Your task to perform on an android device: see tabs open on other devices in the chrome app Image 0: 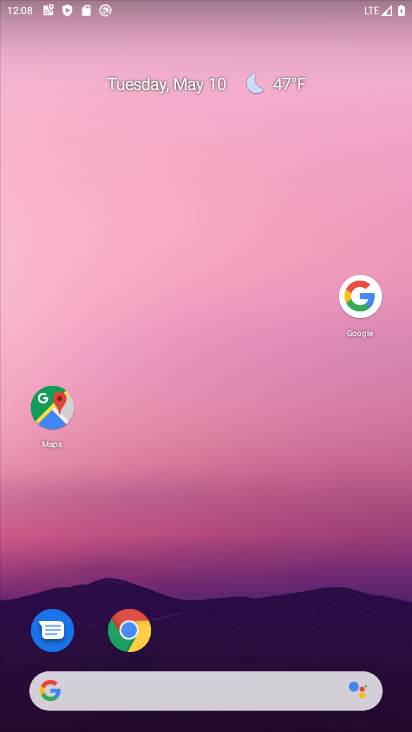
Step 0: press home button
Your task to perform on an android device: see tabs open on other devices in the chrome app Image 1: 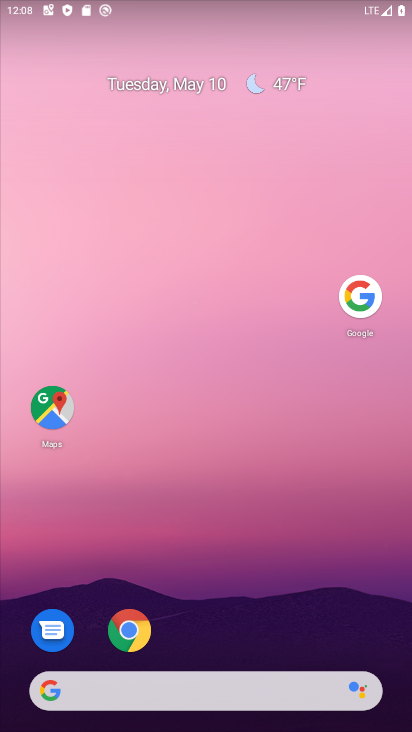
Step 1: drag from (160, 693) to (312, 183)
Your task to perform on an android device: see tabs open on other devices in the chrome app Image 2: 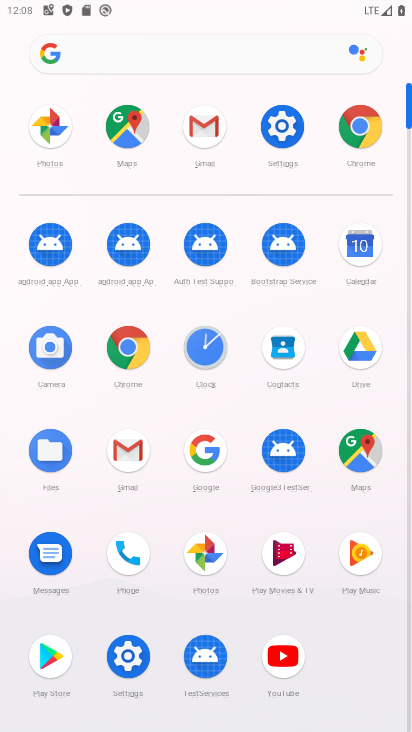
Step 2: click (356, 138)
Your task to perform on an android device: see tabs open on other devices in the chrome app Image 3: 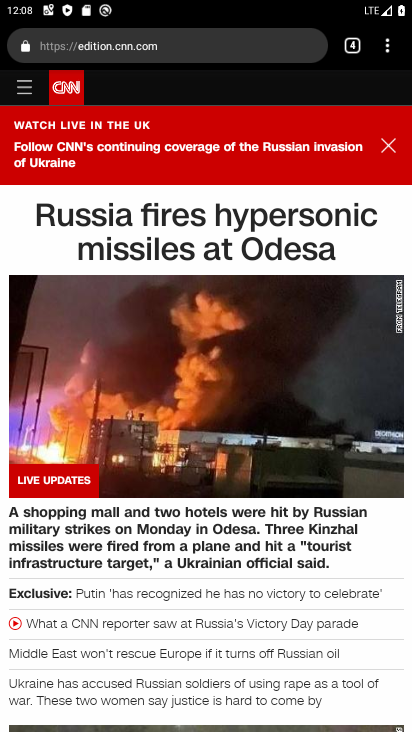
Step 3: task complete